Your task to perform on an android device: toggle wifi Image 0: 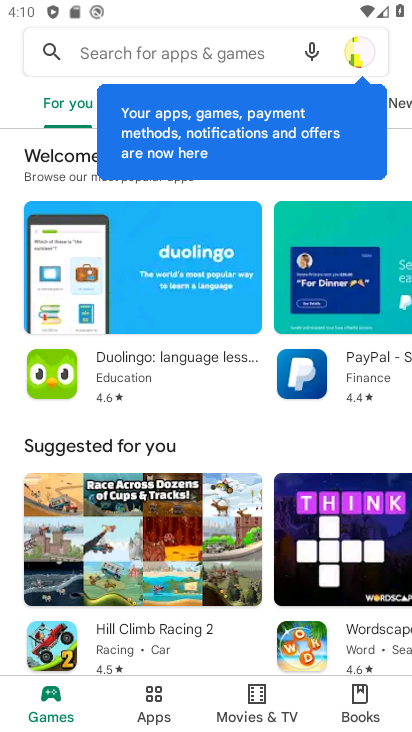
Step 0: press back button
Your task to perform on an android device: toggle wifi Image 1: 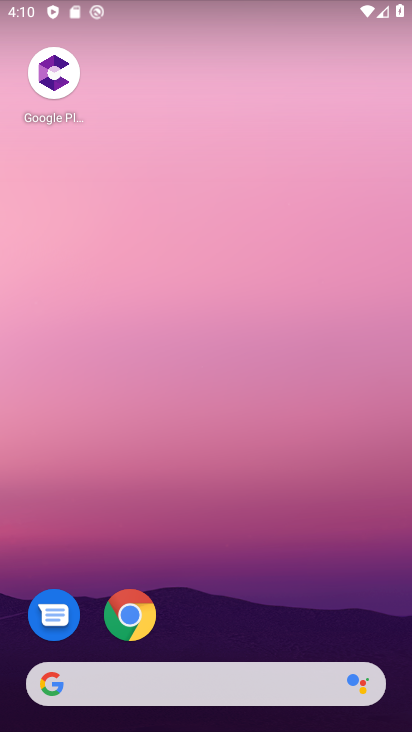
Step 1: drag from (275, 175) to (276, 16)
Your task to perform on an android device: toggle wifi Image 2: 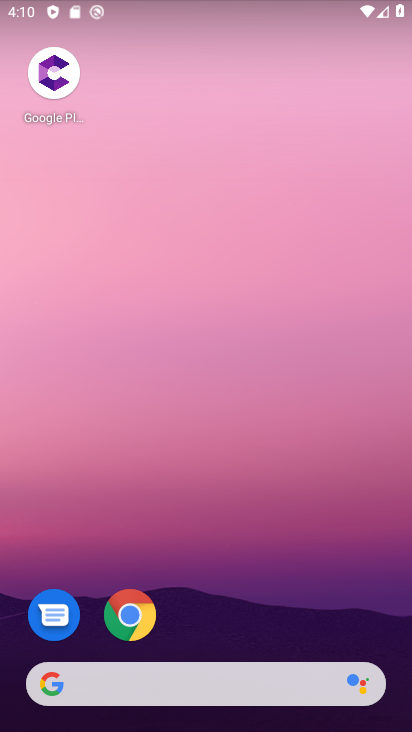
Step 2: drag from (269, 585) to (274, 5)
Your task to perform on an android device: toggle wifi Image 3: 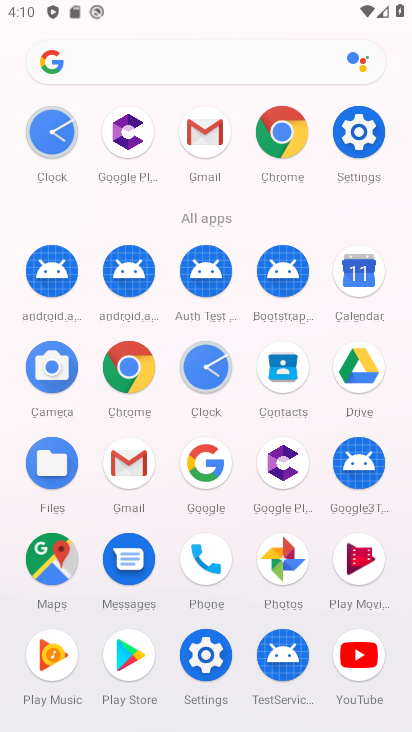
Step 3: click (200, 654)
Your task to perform on an android device: toggle wifi Image 4: 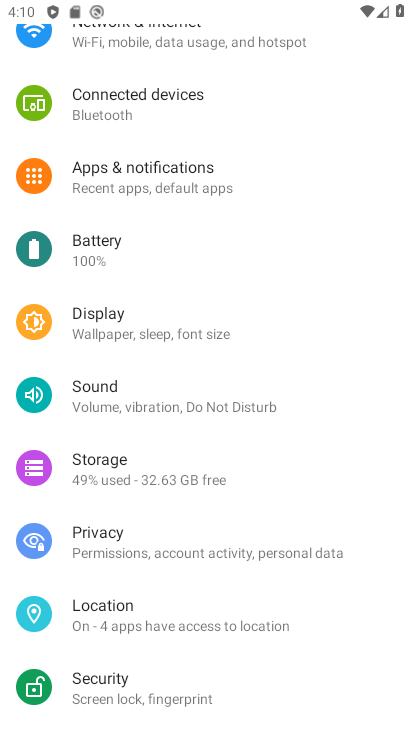
Step 4: drag from (228, 149) to (268, 645)
Your task to perform on an android device: toggle wifi Image 5: 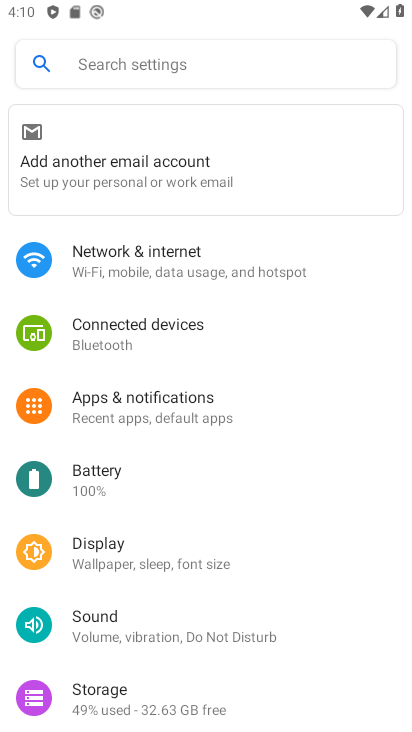
Step 5: click (196, 261)
Your task to perform on an android device: toggle wifi Image 6: 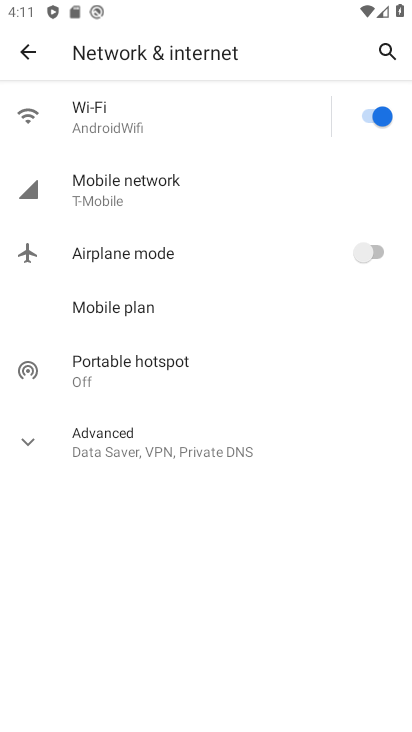
Step 6: click (380, 112)
Your task to perform on an android device: toggle wifi Image 7: 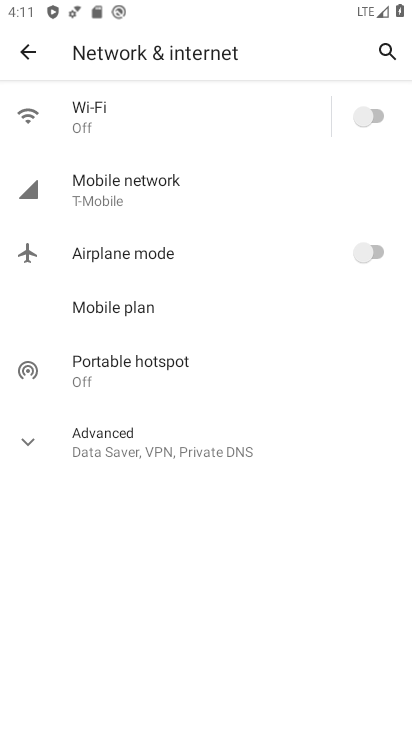
Step 7: task complete